Your task to perform on an android device: open chrome privacy settings Image 0: 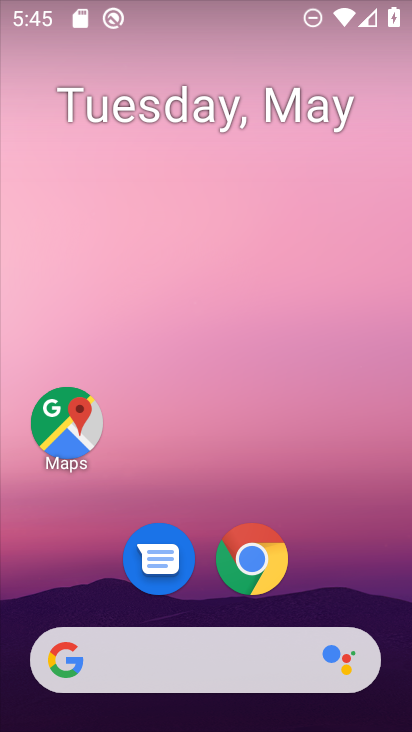
Step 0: drag from (299, 590) to (208, 163)
Your task to perform on an android device: open chrome privacy settings Image 1: 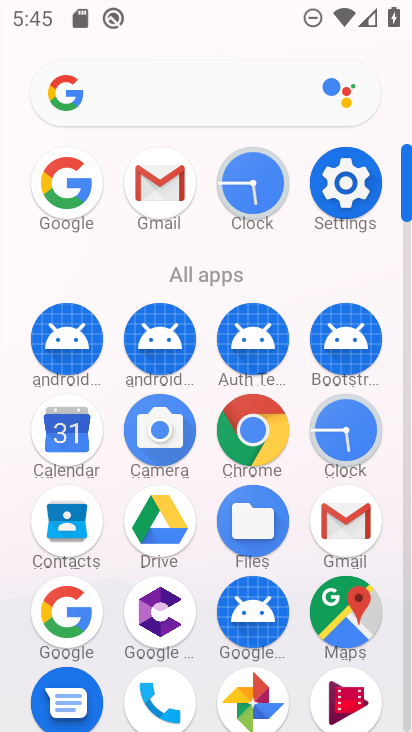
Step 1: click (255, 441)
Your task to perform on an android device: open chrome privacy settings Image 2: 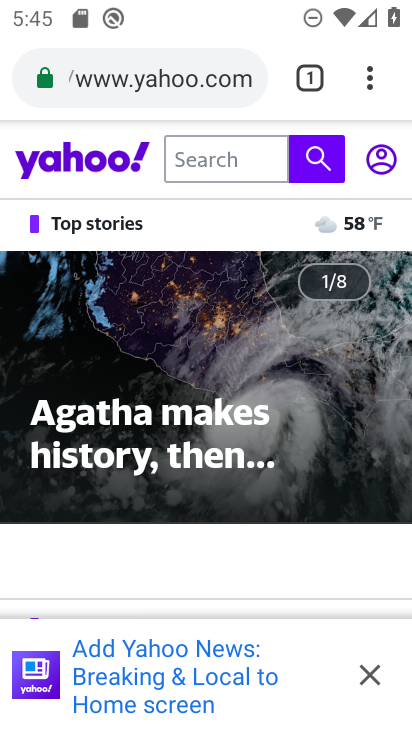
Step 2: click (370, 82)
Your task to perform on an android device: open chrome privacy settings Image 3: 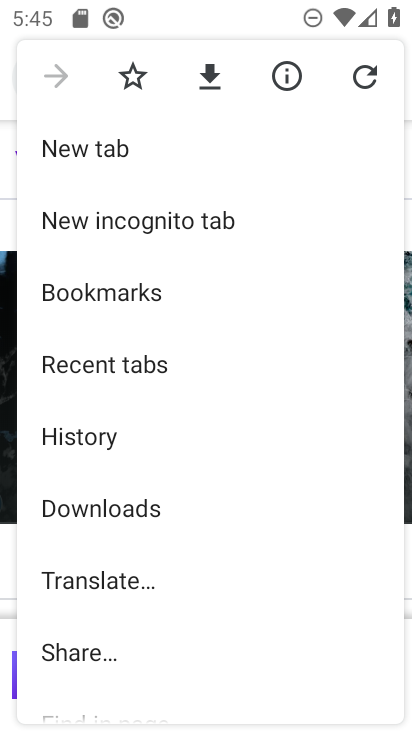
Step 3: drag from (102, 604) to (131, 239)
Your task to perform on an android device: open chrome privacy settings Image 4: 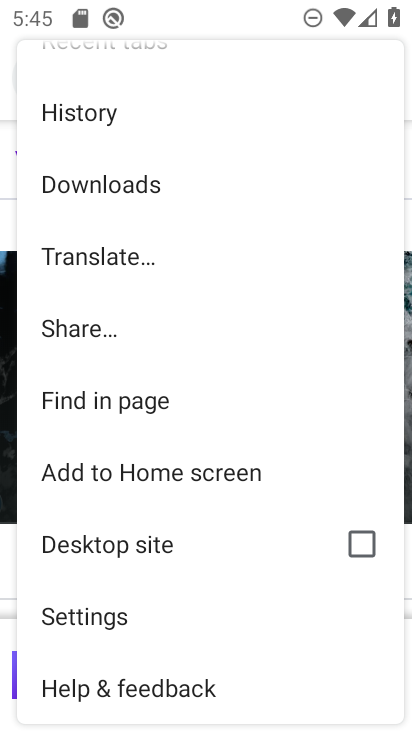
Step 4: click (82, 621)
Your task to perform on an android device: open chrome privacy settings Image 5: 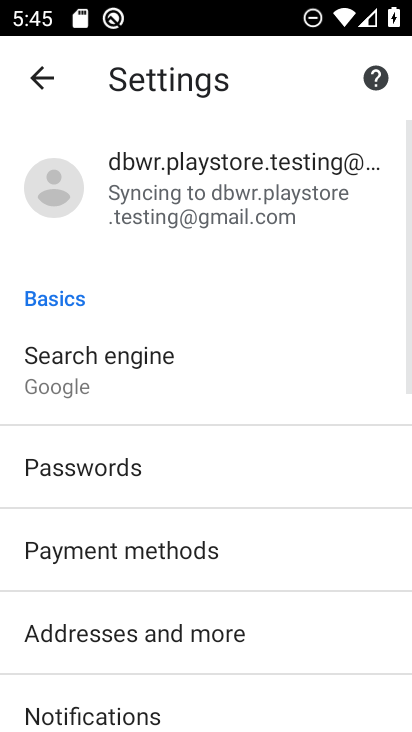
Step 5: drag from (158, 613) to (212, 316)
Your task to perform on an android device: open chrome privacy settings Image 6: 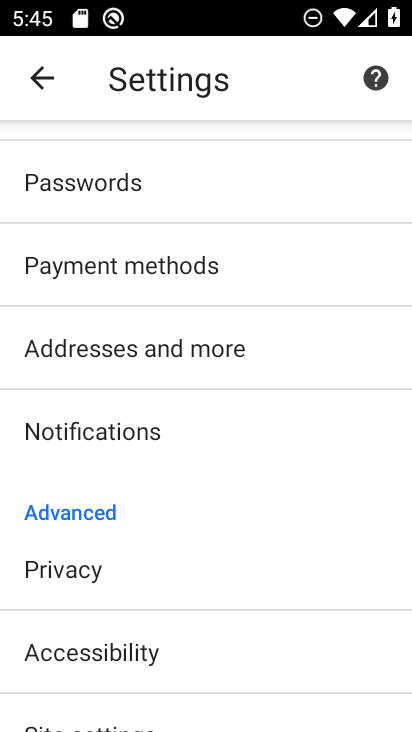
Step 6: click (65, 576)
Your task to perform on an android device: open chrome privacy settings Image 7: 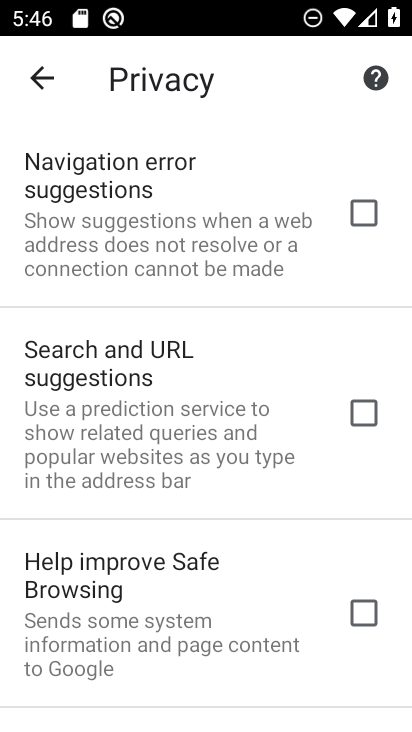
Step 7: task complete